Your task to perform on an android device: open app "Google Play Games" (install if not already installed) Image 0: 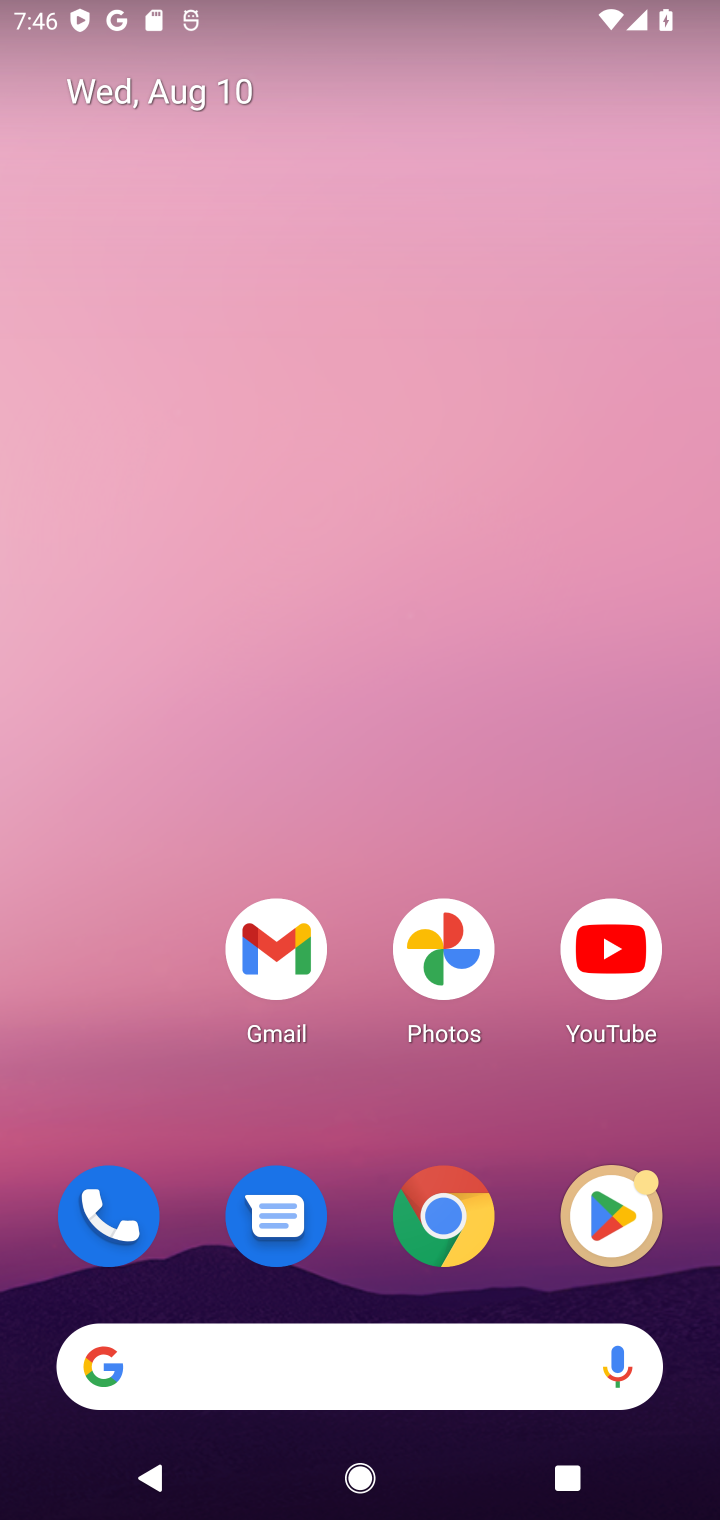
Step 0: click (635, 1208)
Your task to perform on an android device: open app "Google Play Games" (install if not already installed) Image 1: 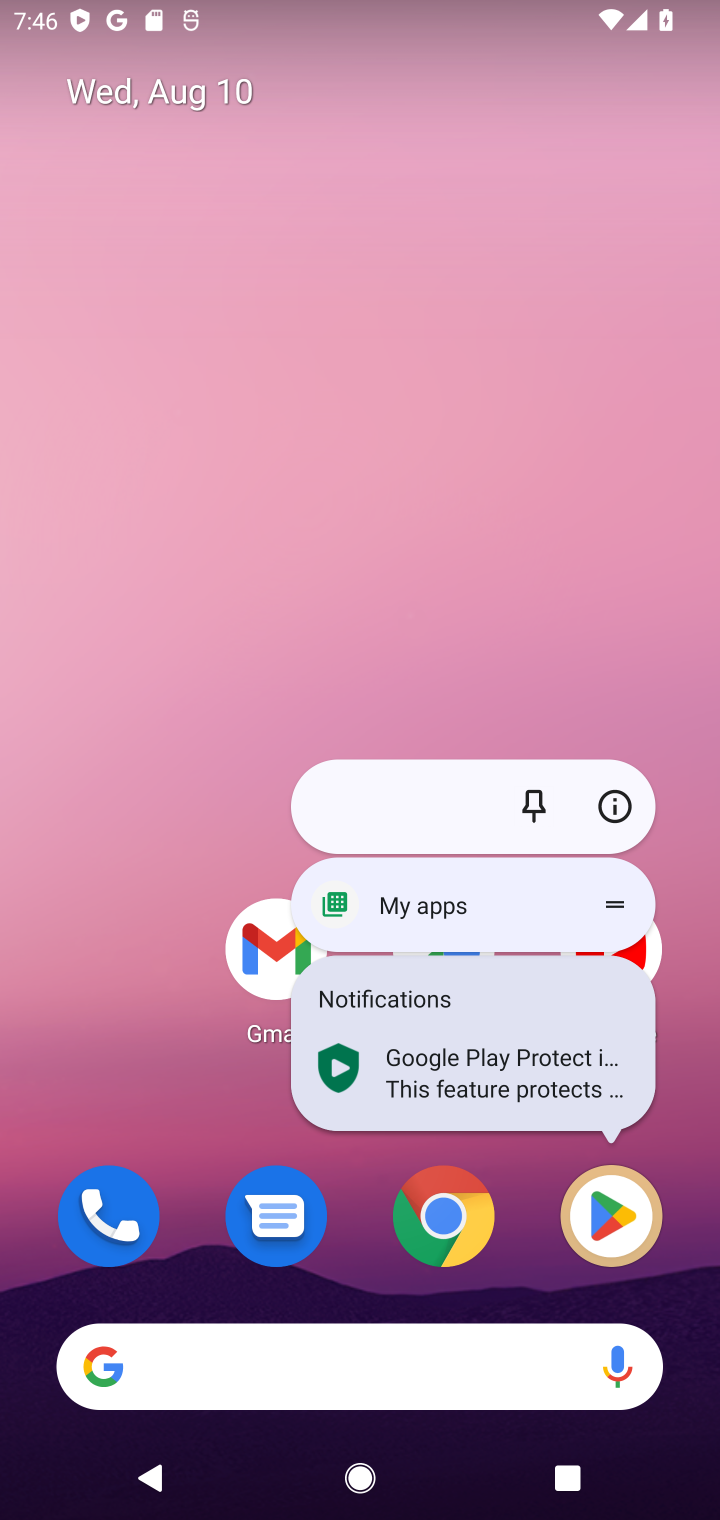
Step 1: click (630, 1234)
Your task to perform on an android device: open app "Google Play Games" (install if not already installed) Image 2: 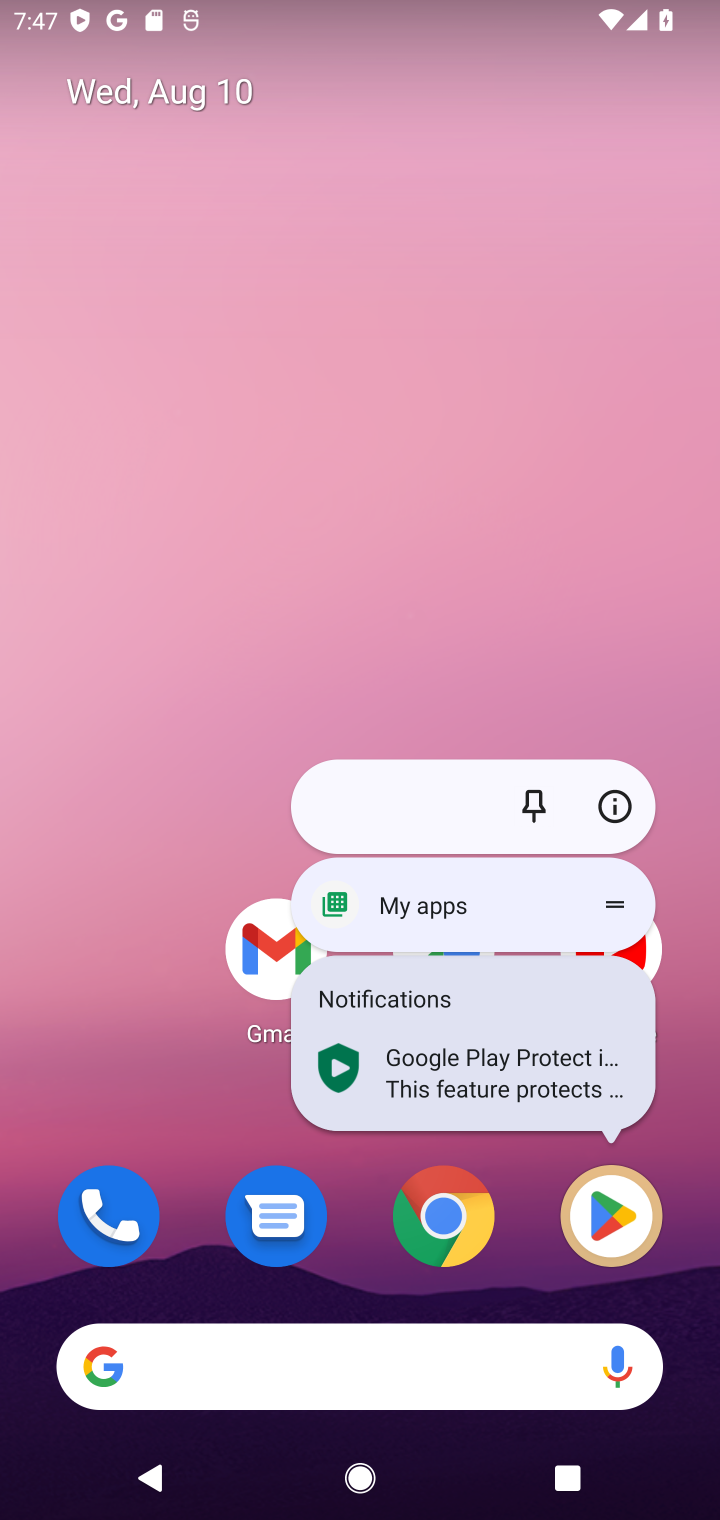
Step 2: click (613, 1226)
Your task to perform on an android device: open app "Google Play Games" (install if not already installed) Image 3: 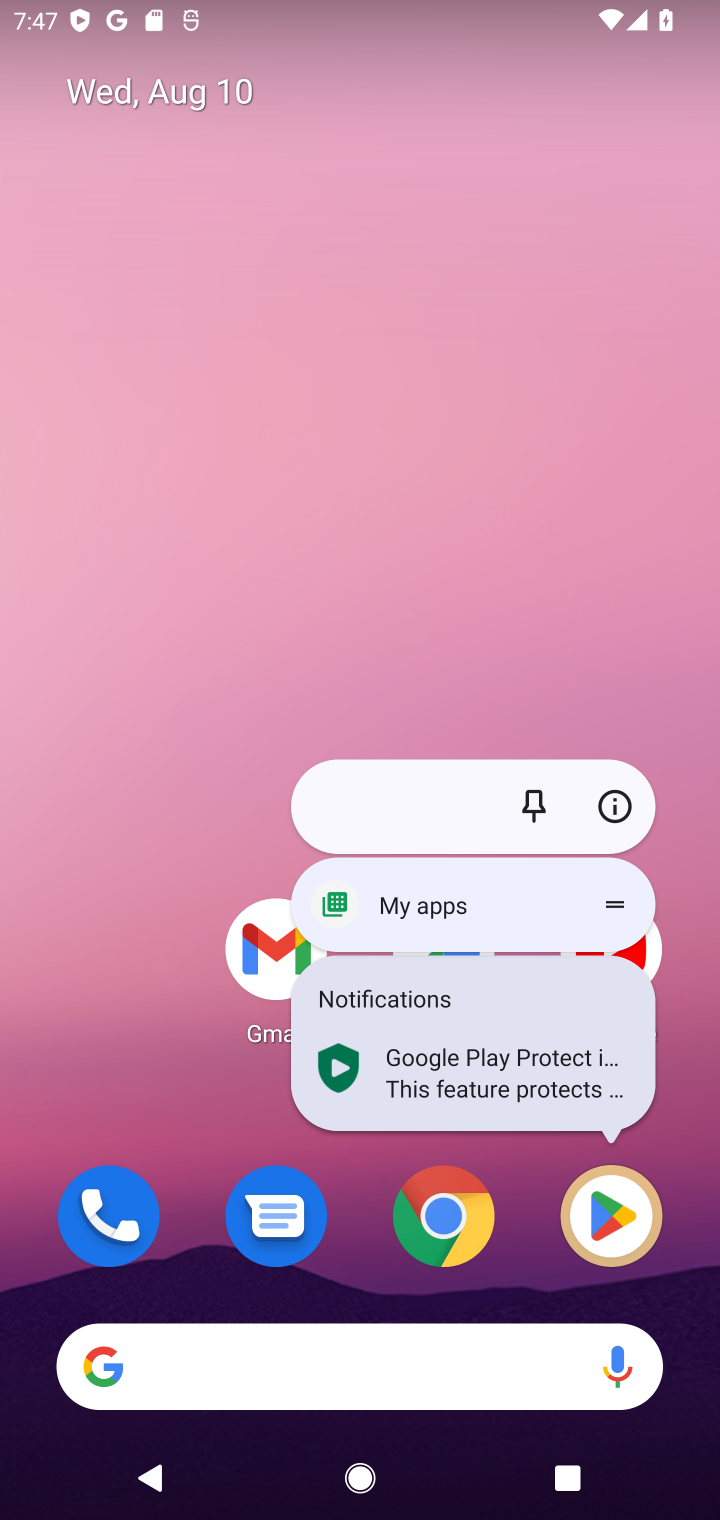
Step 3: click (613, 1221)
Your task to perform on an android device: open app "Google Play Games" (install if not already installed) Image 4: 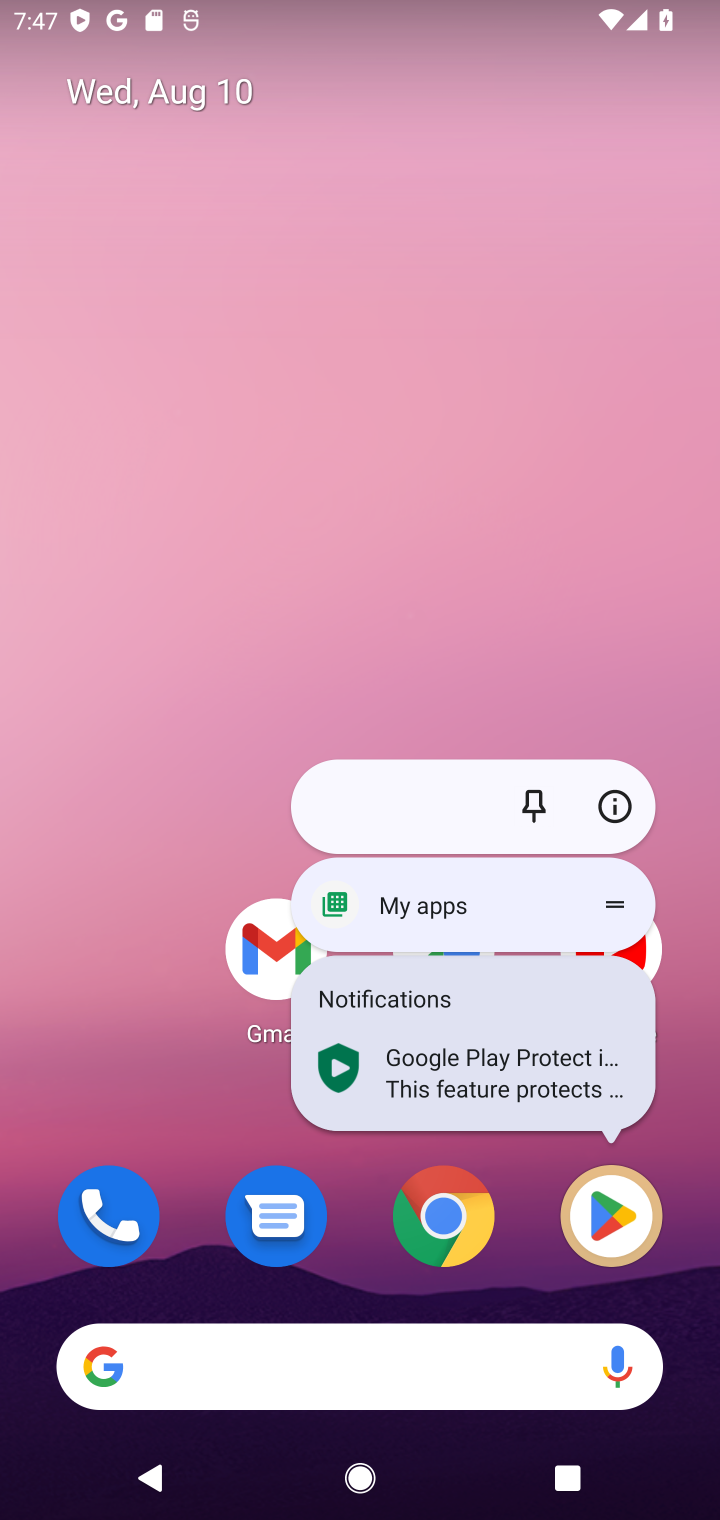
Step 4: click (626, 1209)
Your task to perform on an android device: open app "Google Play Games" (install if not already installed) Image 5: 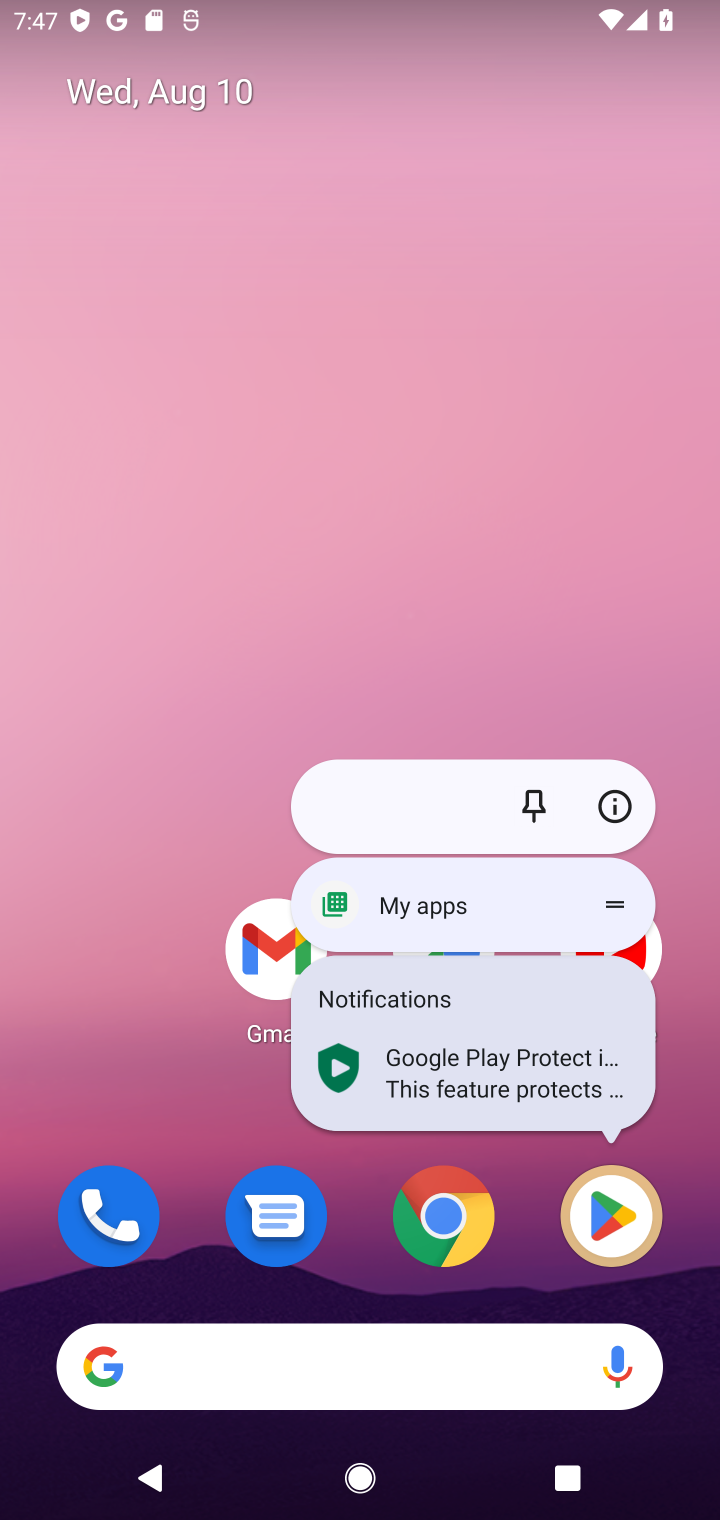
Step 5: click (621, 1204)
Your task to perform on an android device: open app "Google Play Games" (install if not already installed) Image 6: 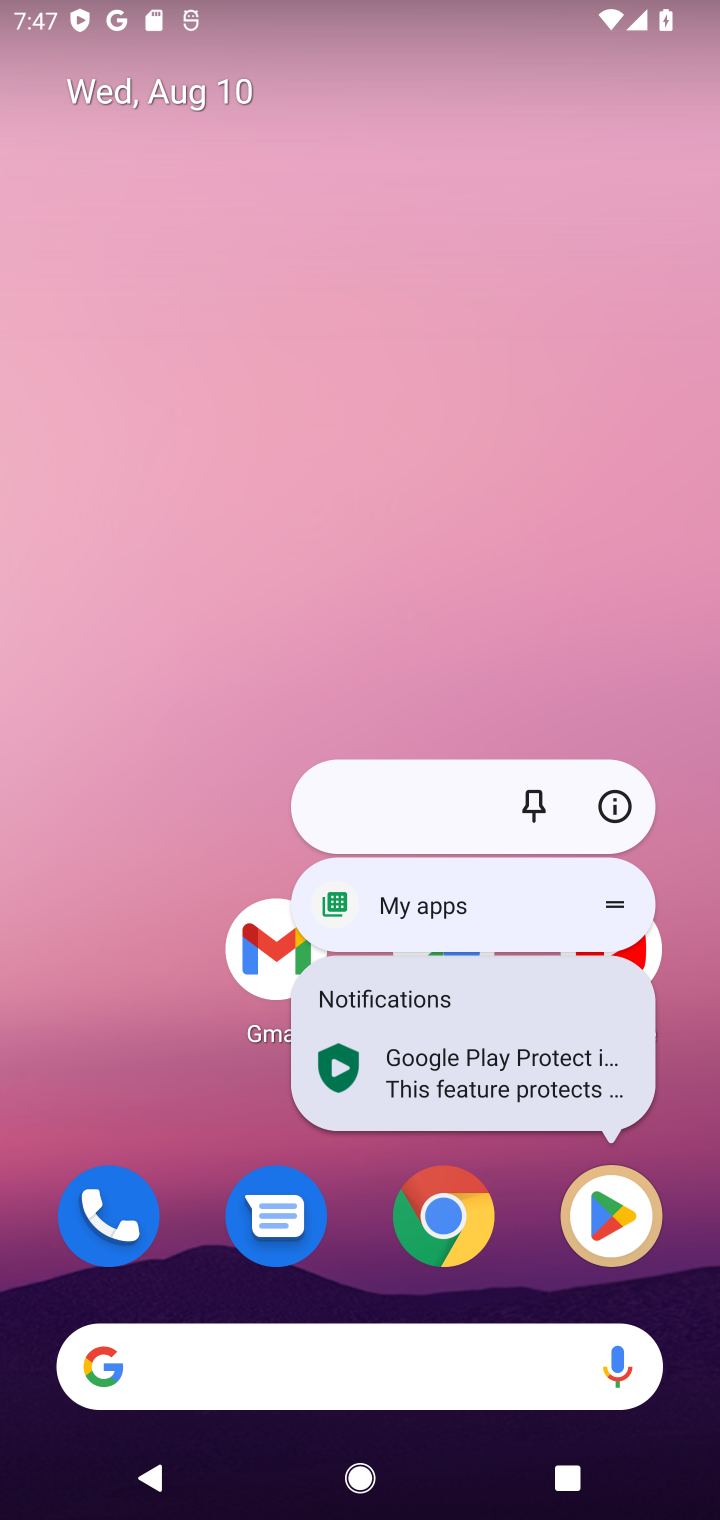
Step 6: click (602, 1211)
Your task to perform on an android device: open app "Google Play Games" (install if not already installed) Image 7: 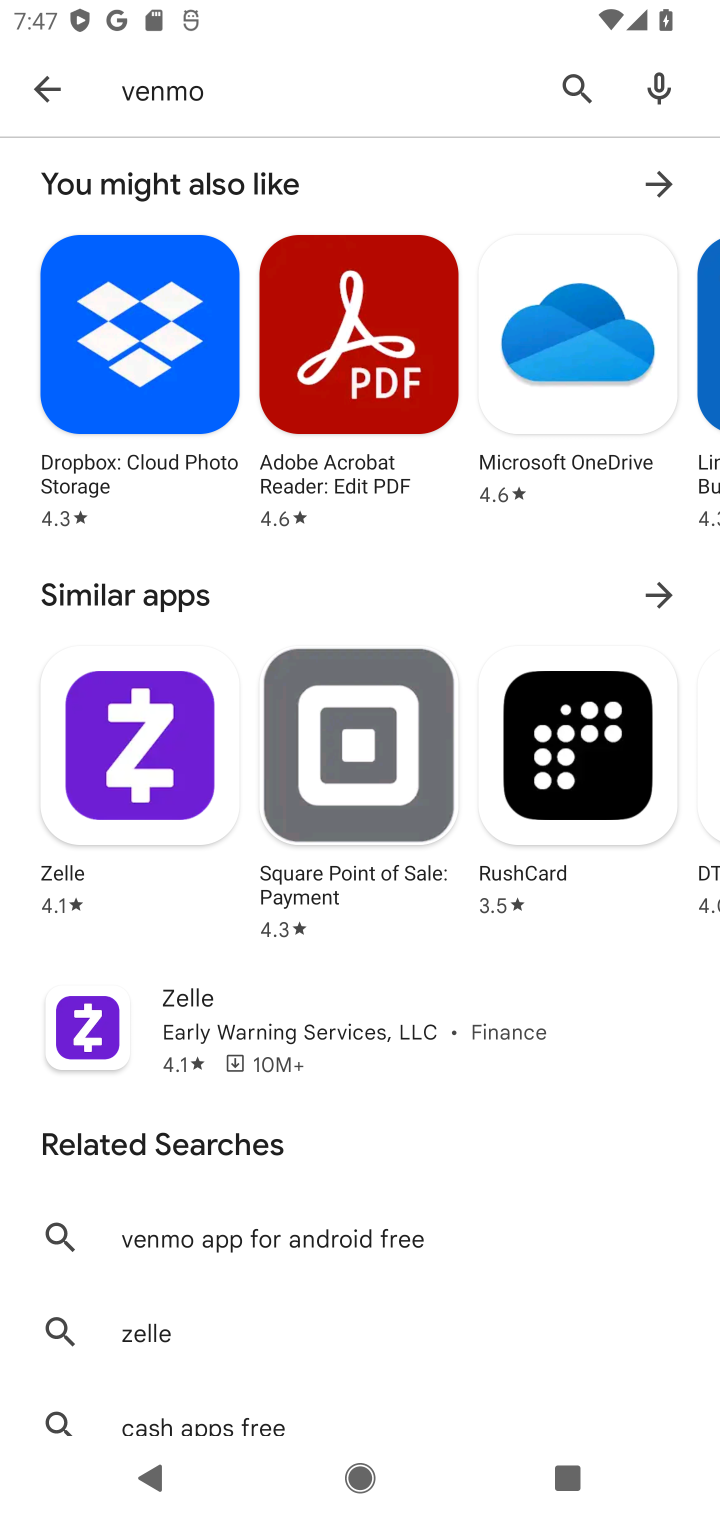
Step 7: click (564, 88)
Your task to perform on an android device: open app "Google Play Games" (install if not already installed) Image 8: 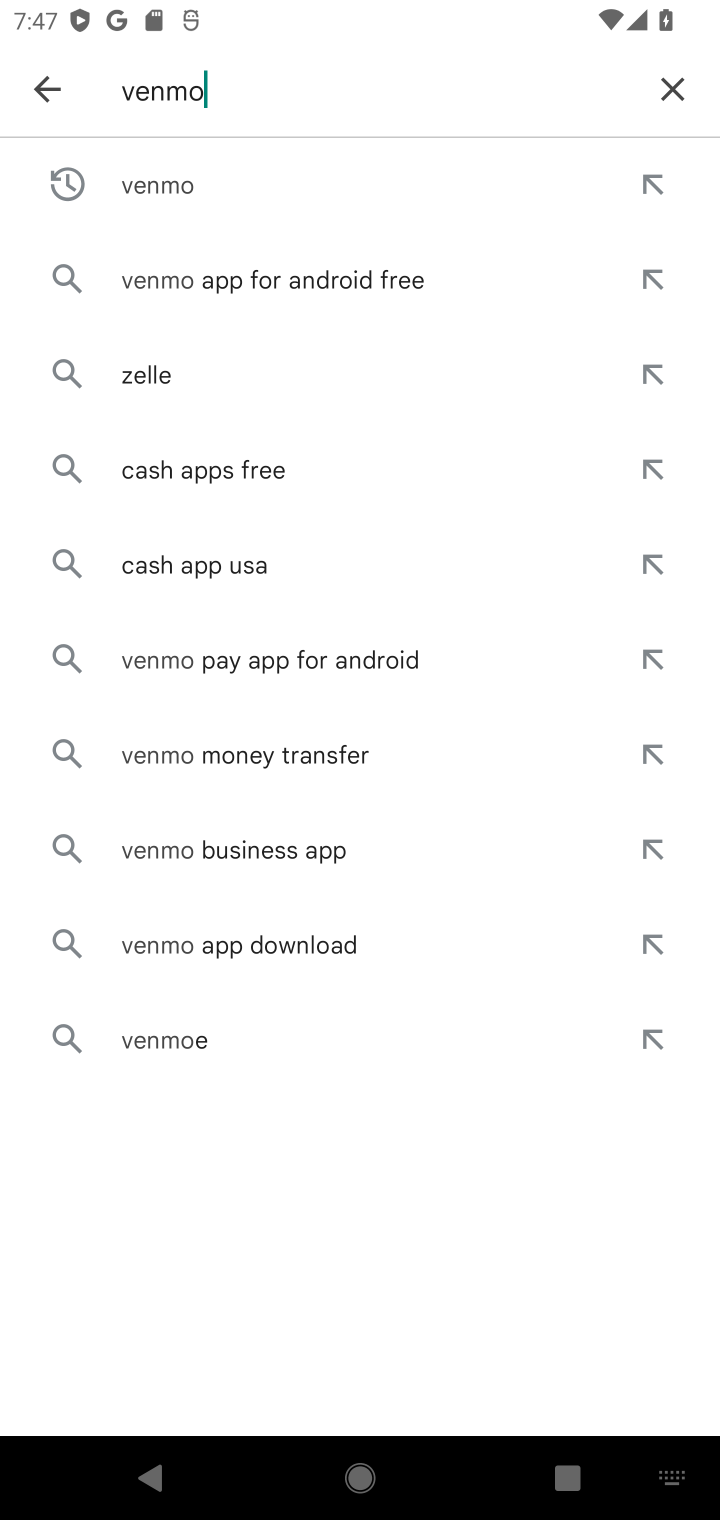
Step 8: click (666, 92)
Your task to perform on an android device: open app "Google Play Games" (install if not already installed) Image 9: 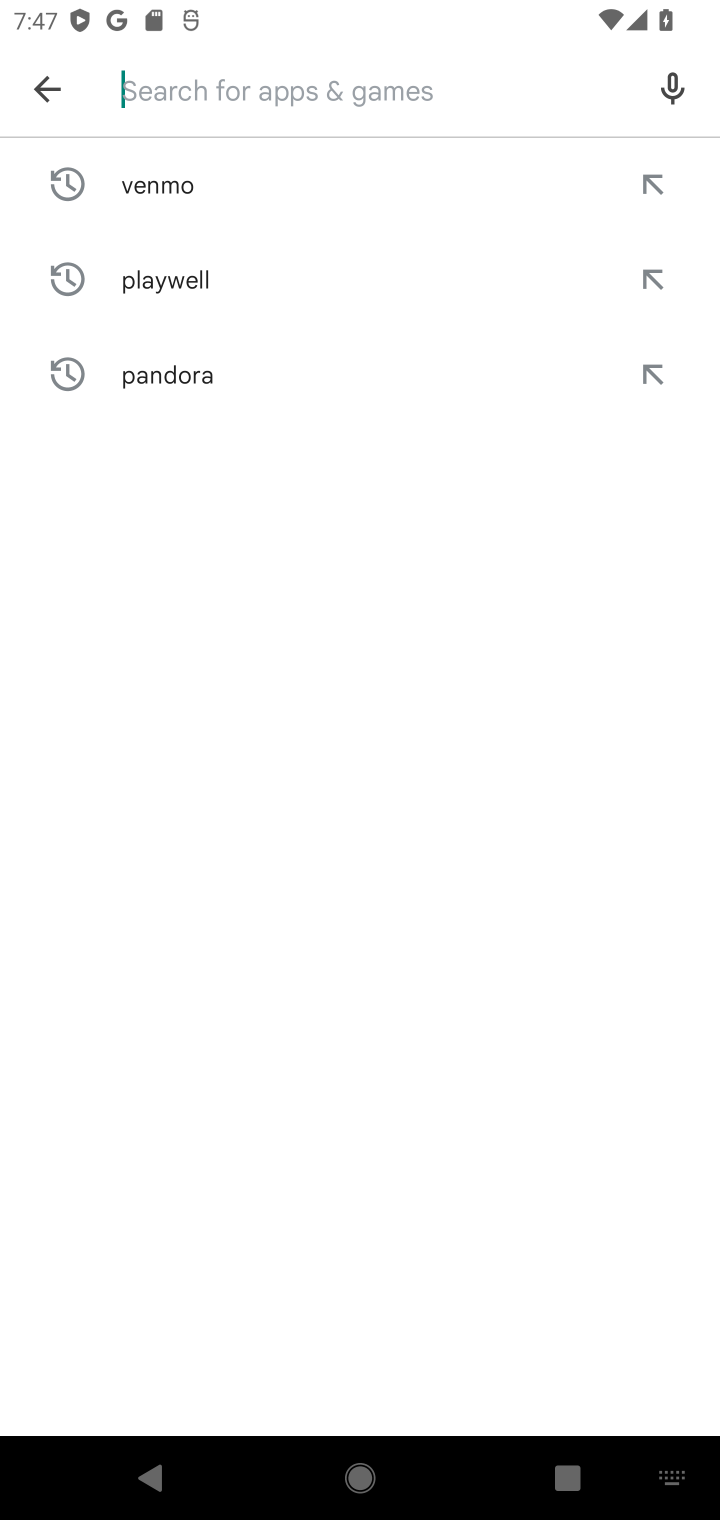
Step 9: click (168, 83)
Your task to perform on an android device: open app "Google Play Games" (install if not already installed) Image 10: 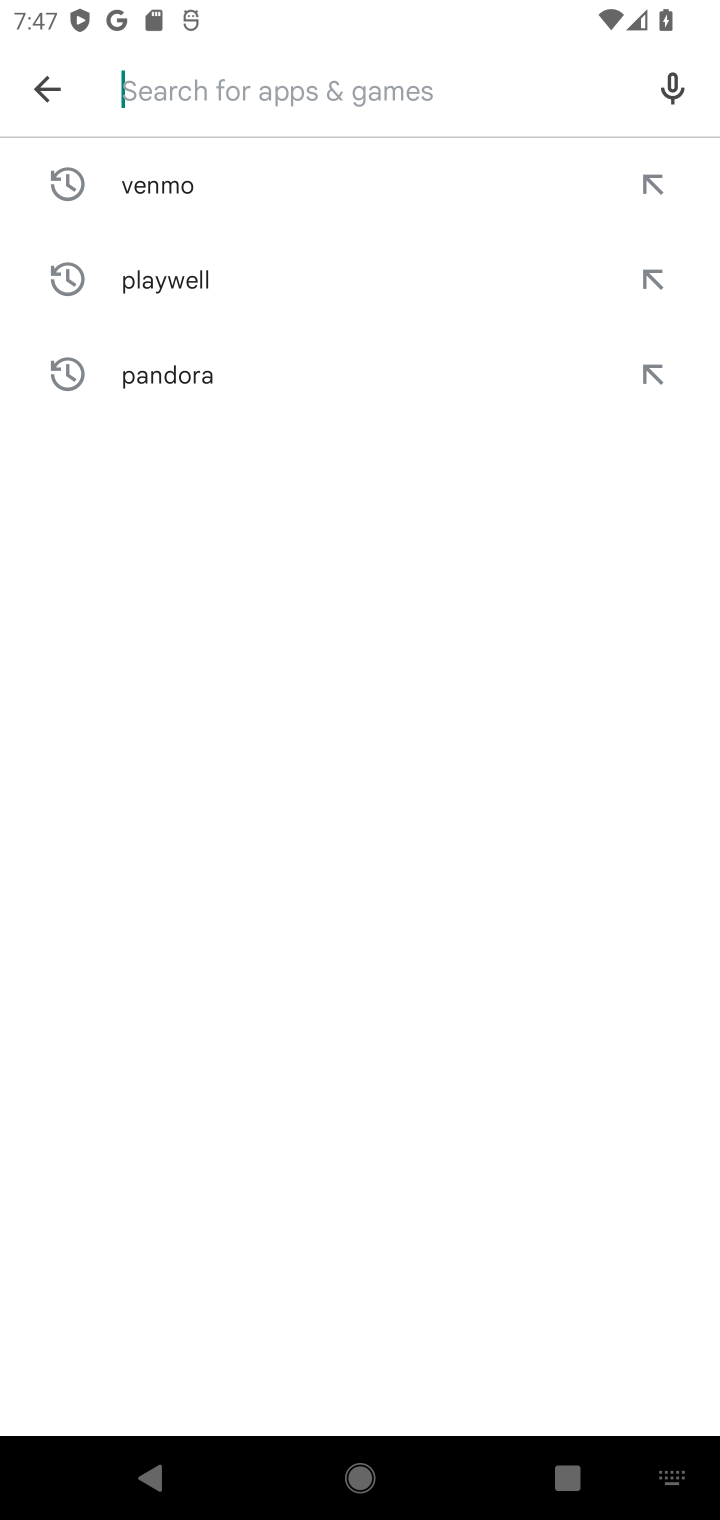
Step 10: type "Google Play Games"
Your task to perform on an android device: open app "Google Play Games" (install if not already installed) Image 11: 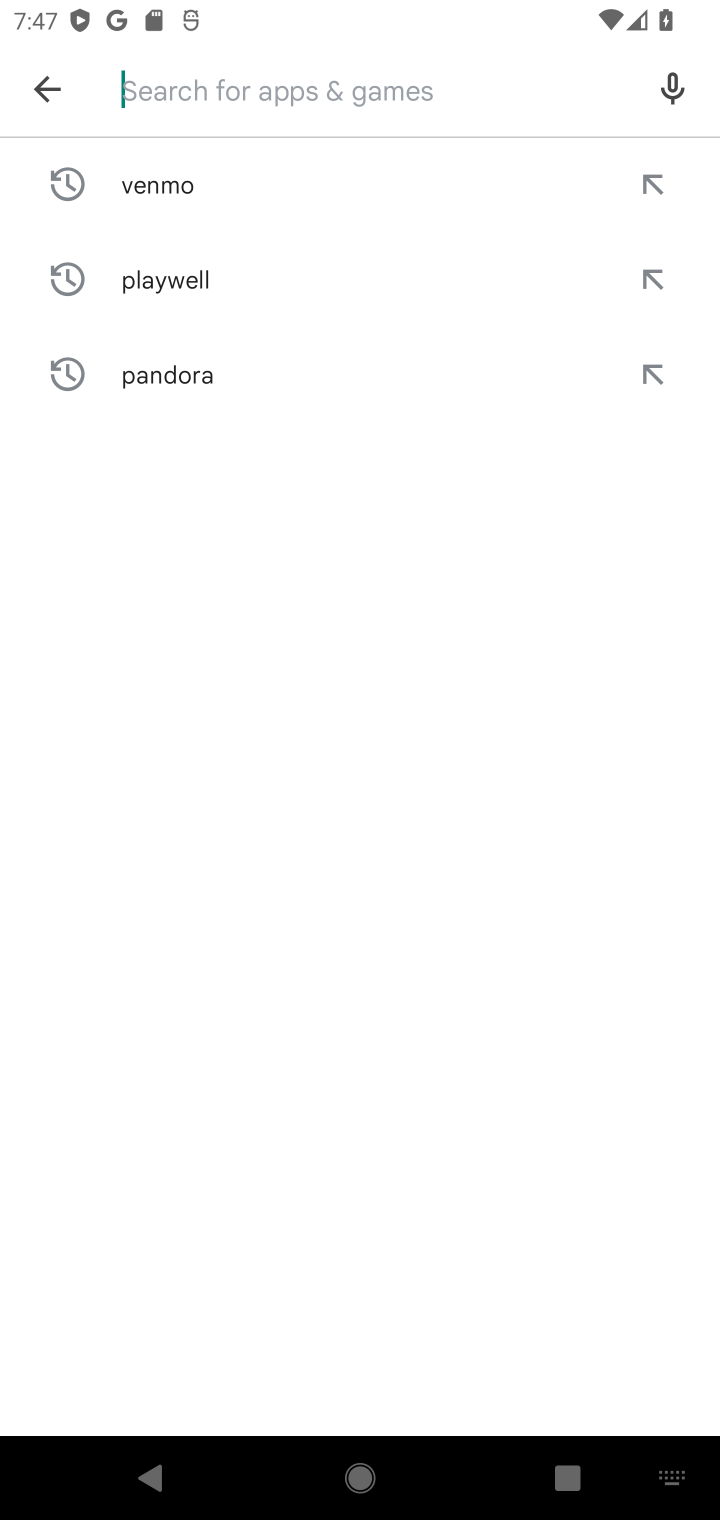
Step 11: click (494, 795)
Your task to perform on an android device: open app "Google Play Games" (install if not already installed) Image 12: 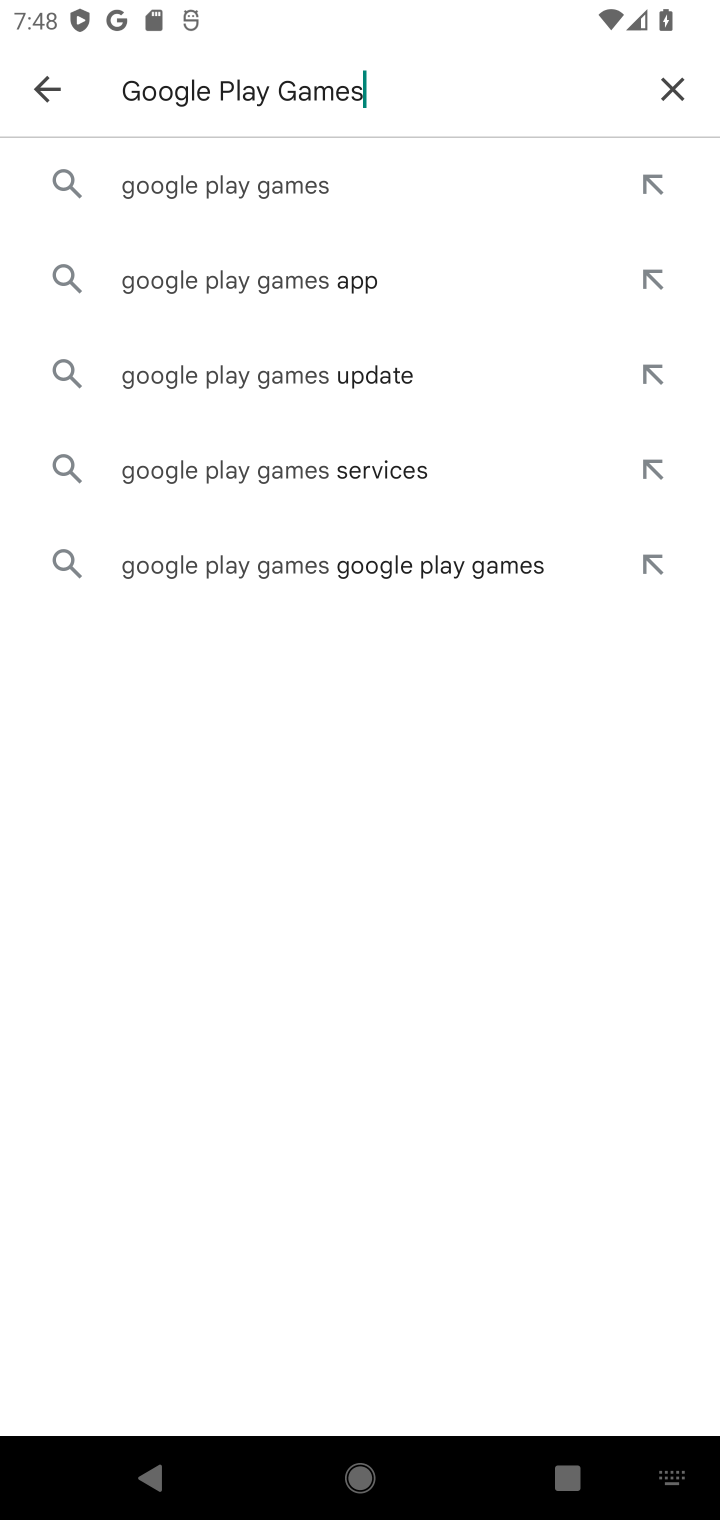
Step 12: click (261, 155)
Your task to perform on an android device: open app "Google Play Games" (install if not already installed) Image 13: 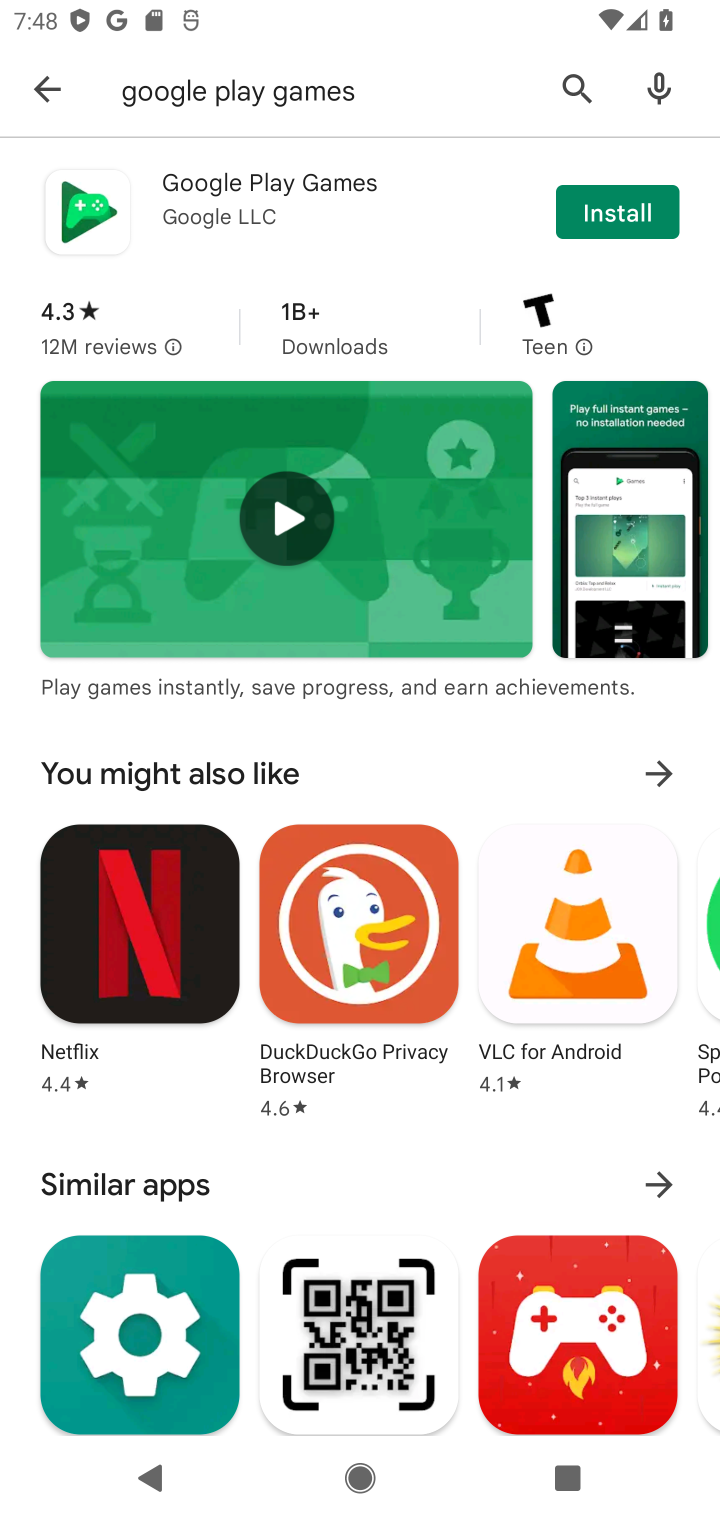
Step 13: click (598, 220)
Your task to perform on an android device: open app "Google Play Games" (install if not already installed) Image 14: 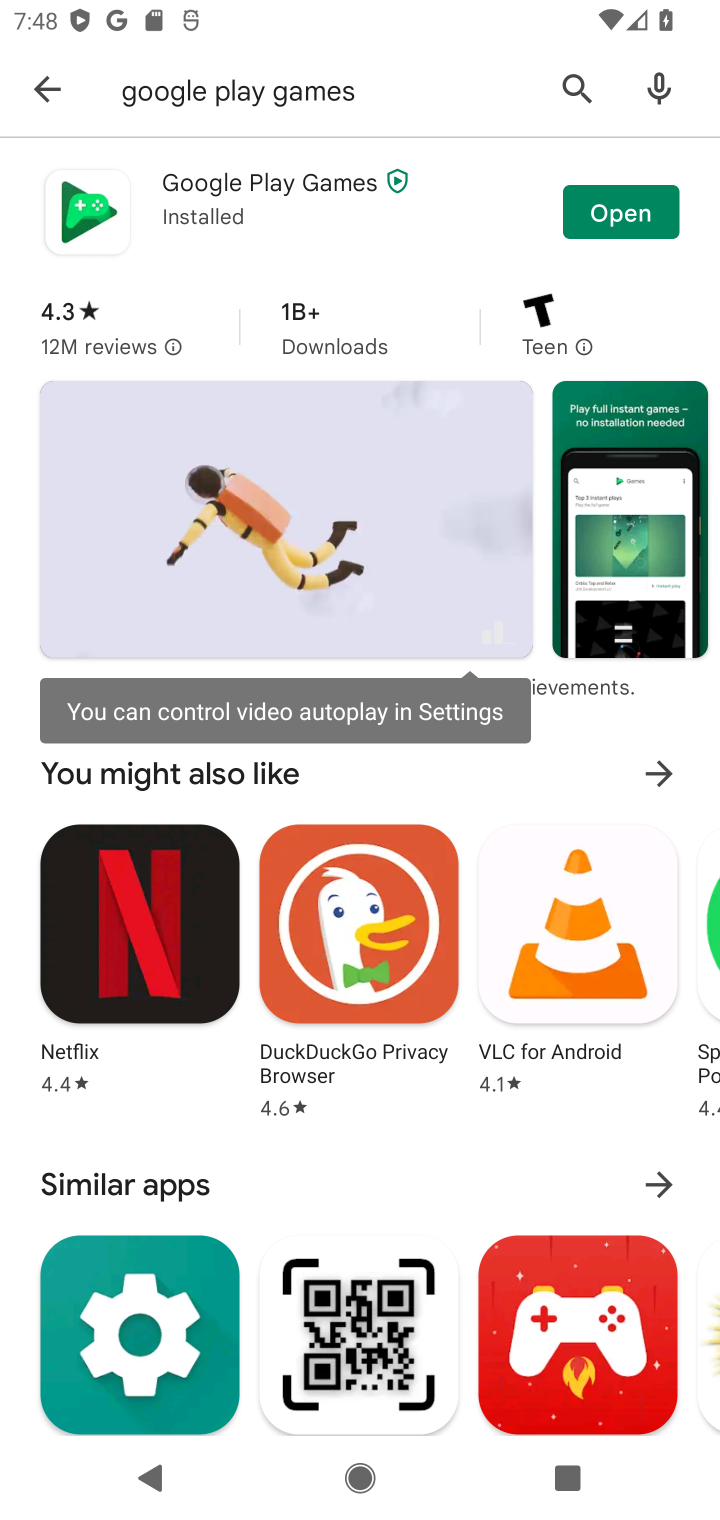
Step 14: click (630, 209)
Your task to perform on an android device: open app "Google Play Games" (install if not already installed) Image 15: 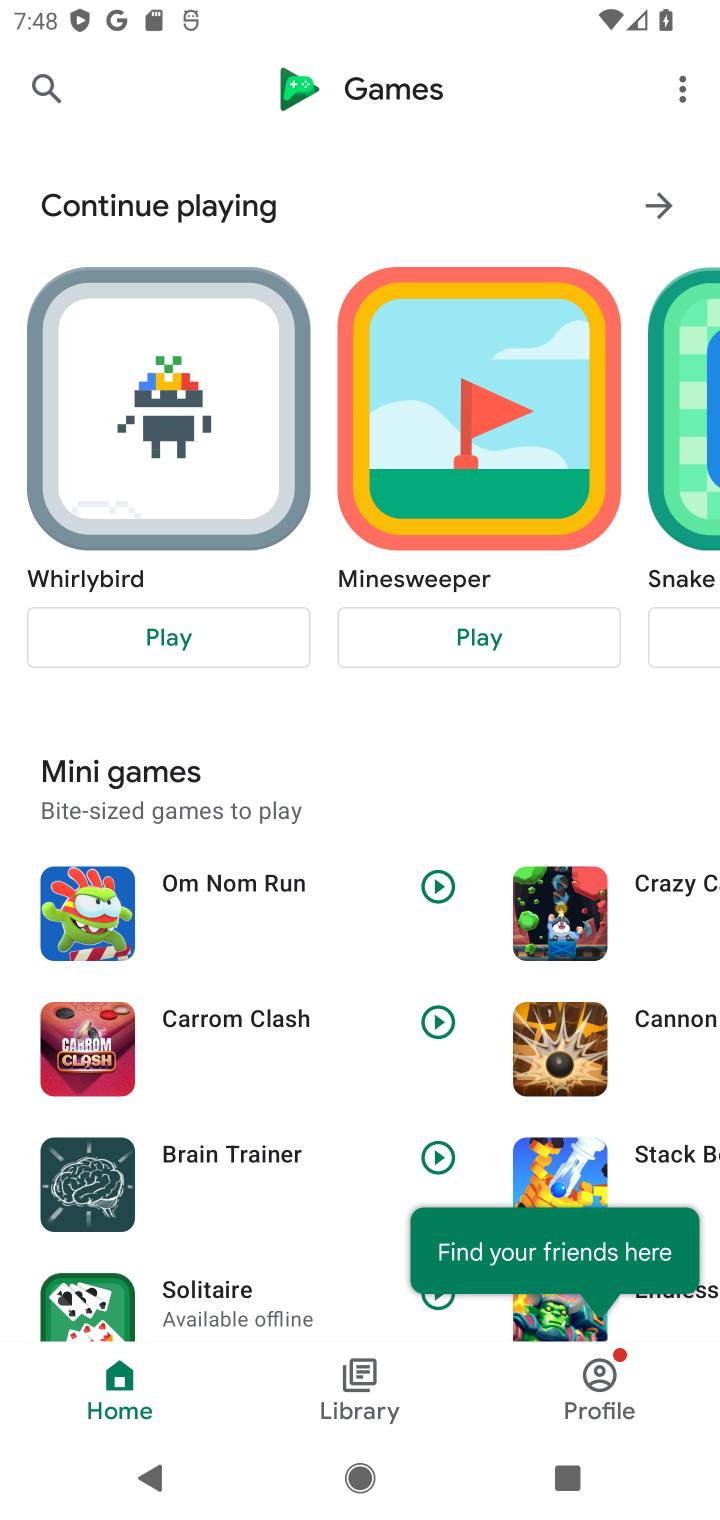
Step 15: task complete